Your task to perform on an android device: toggle notifications settings in the gmail app Image 0: 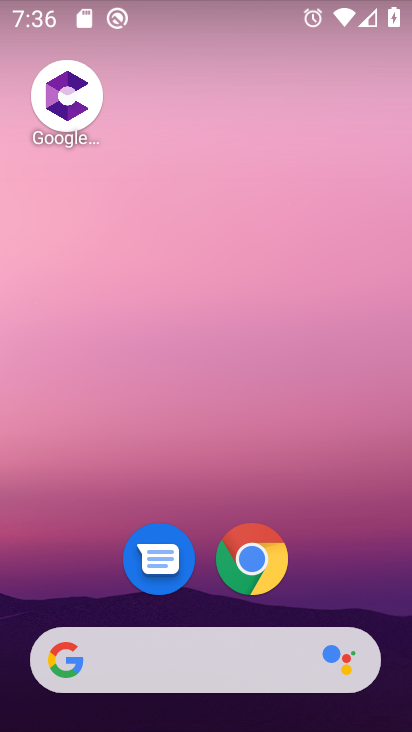
Step 0: drag from (370, 574) to (360, 52)
Your task to perform on an android device: toggle notifications settings in the gmail app Image 1: 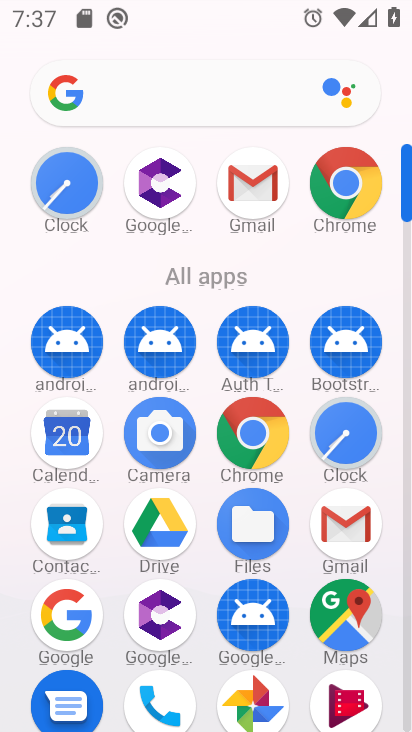
Step 1: drag from (296, 572) to (332, 224)
Your task to perform on an android device: toggle notifications settings in the gmail app Image 2: 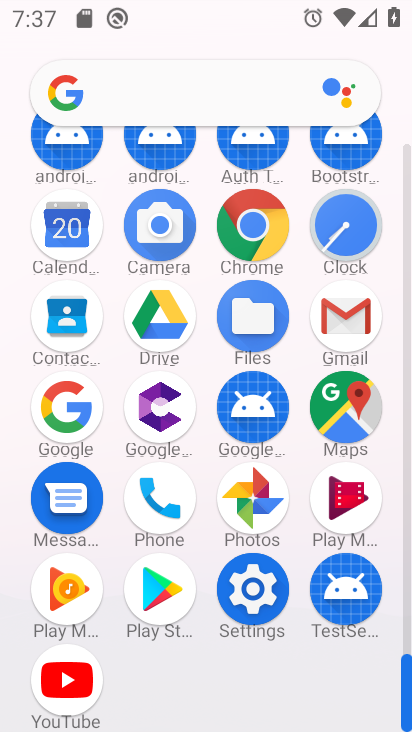
Step 2: click (342, 338)
Your task to perform on an android device: toggle notifications settings in the gmail app Image 3: 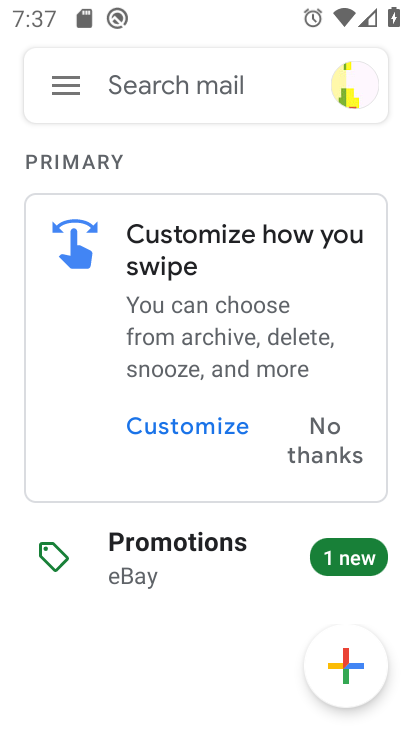
Step 3: click (73, 88)
Your task to perform on an android device: toggle notifications settings in the gmail app Image 4: 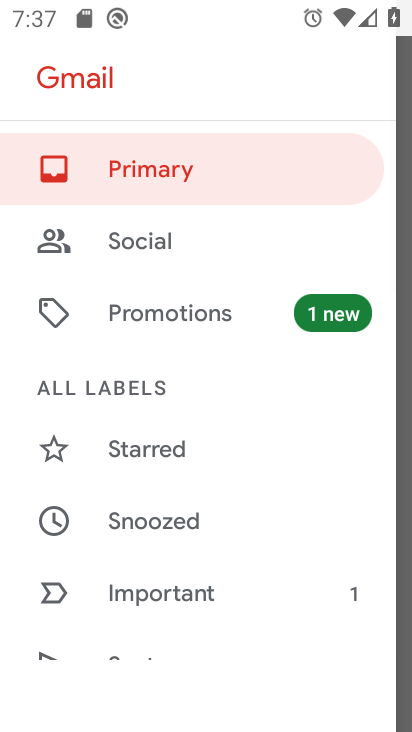
Step 4: drag from (245, 599) to (265, 182)
Your task to perform on an android device: toggle notifications settings in the gmail app Image 5: 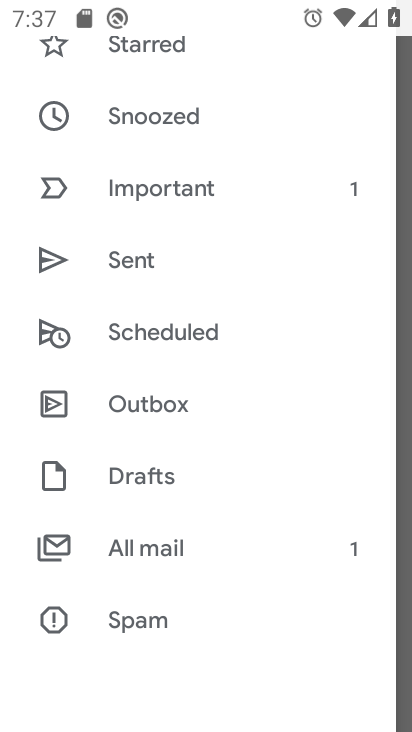
Step 5: drag from (241, 601) to (270, 287)
Your task to perform on an android device: toggle notifications settings in the gmail app Image 6: 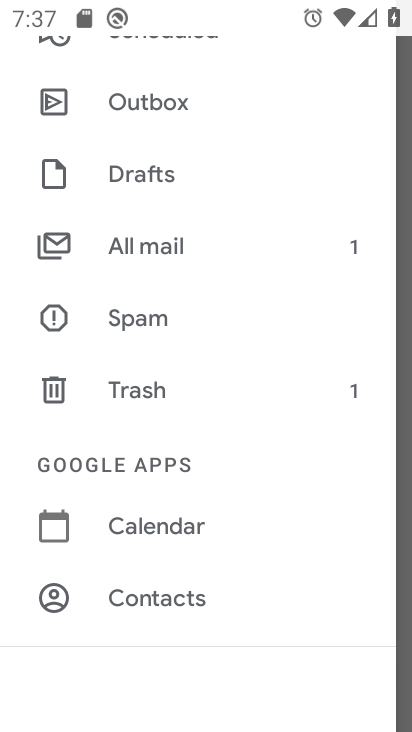
Step 6: drag from (267, 608) to (274, 255)
Your task to perform on an android device: toggle notifications settings in the gmail app Image 7: 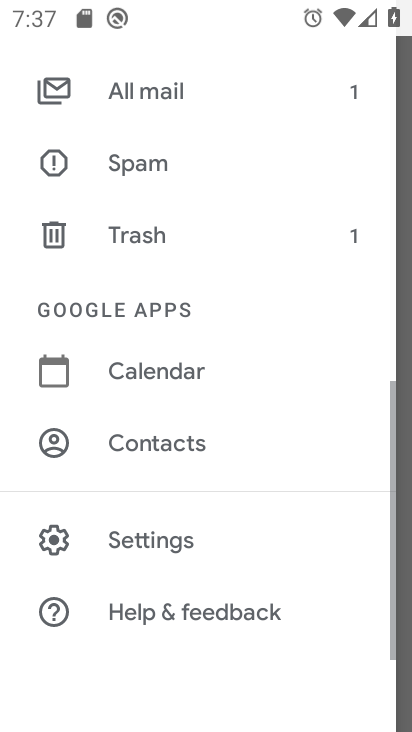
Step 7: click (138, 538)
Your task to perform on an android device: toggle notifications settings in the gmail app Image 8: 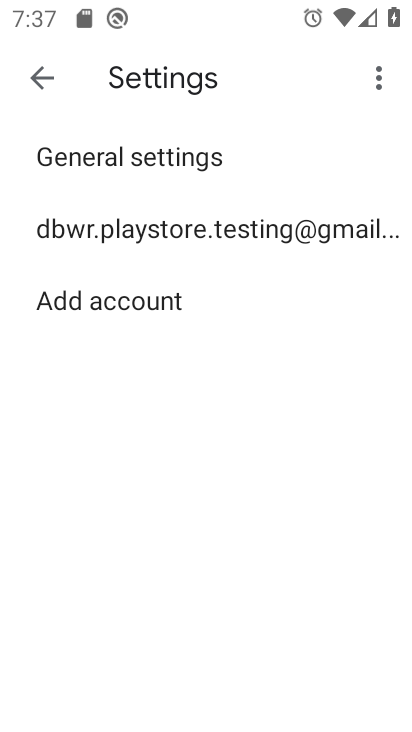
Step 8: click (214, 225)
Your task to perform on an android device: toggle notifications settings in the gmail app Image 9: 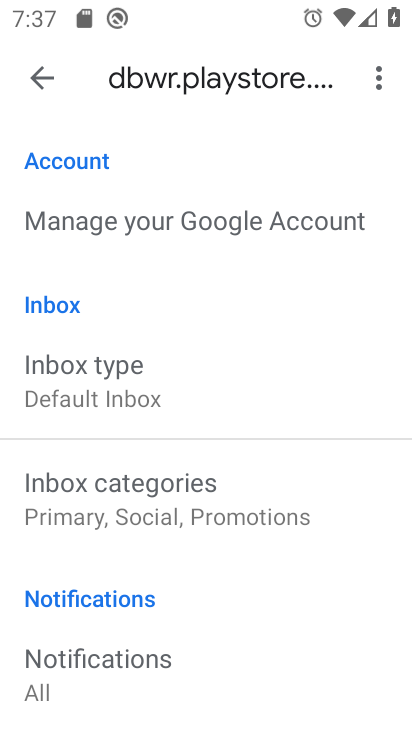
Step 9: drag from (263, 622) to (268, 308)
Your task to perform on an android device: toggle notifications settings in the gmail app Image 10: 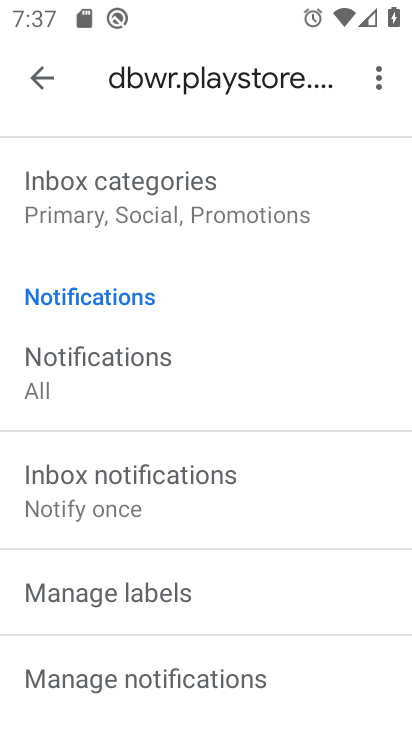
Step 10: click (115, 360)
Your task to perform on an android device: toggle notifications settings in the gmail app Image 11: 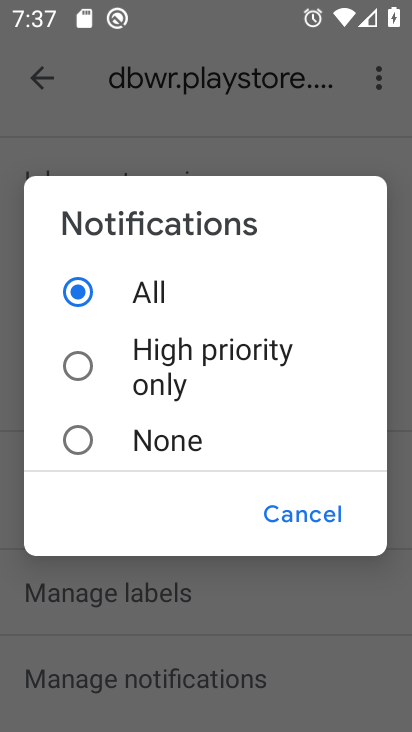
Step 11: click (145, 445)
Your task to perform on an android device: toggle notifications settings in the gmail app Image 12: 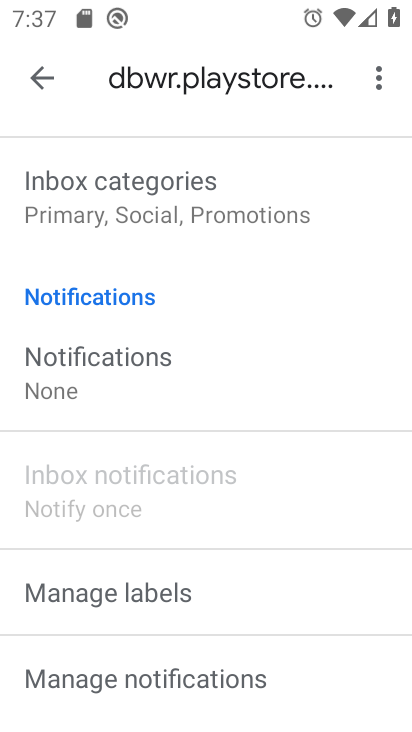
Step 12: task complete